Your task to perform on an android device: toggle priority inbox in the gmail app Image 0: 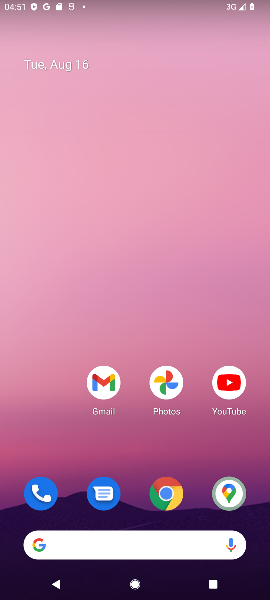
Step 0: press home button
Your task to perform on an android device: toggle priority inbox in the gmail app Image 1: 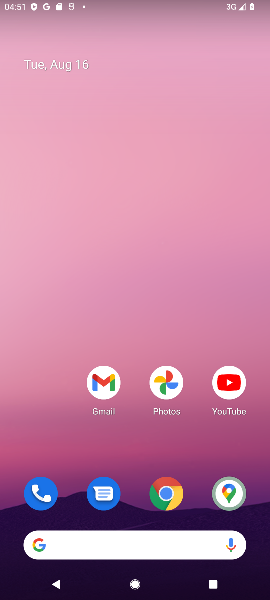
Step 1: drag from (67, 463) to (91, 124)
Your task to perform on an android device: toggle priority inbox in the gmail app Image 2: 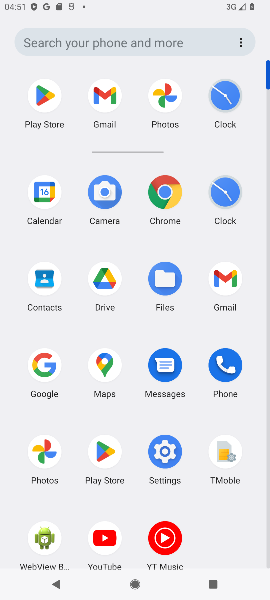
Step 2: click (225, 273)
Your task to perform on an android device: toggle priority inbox in the gmail app Image 3: 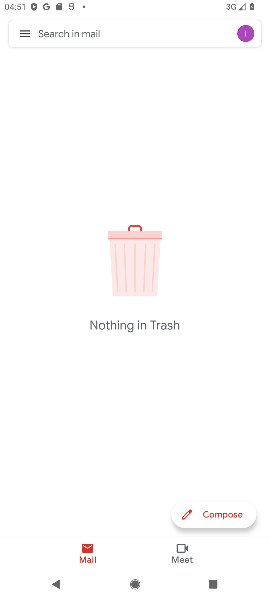
Step 3: click (22, 30)
Your task to perform on an android device: toggle priority inbox in the gmail app Image 4: 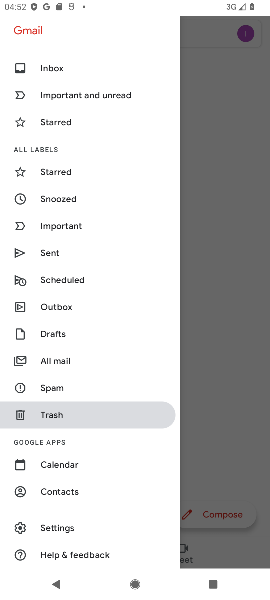
Step 4: click (75, 527)
Your task to perform on an android device: toggle priority inbox in the gmail app Image 5: 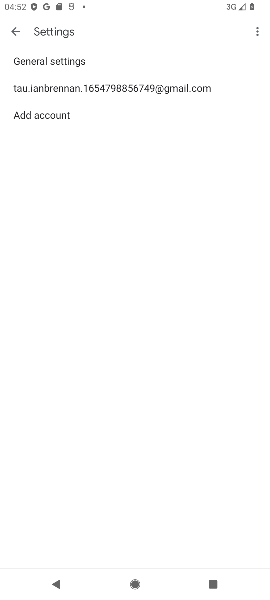
Step 5: click (167, 84)
Your task to perform on an android device: toggle priority inbox in the gmail app Image 6: 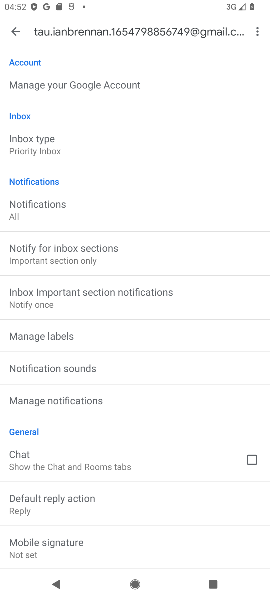
Step 6: task complete